Your task to perform on an android device: Open the phone app and click the voicemail tab. Image 0: 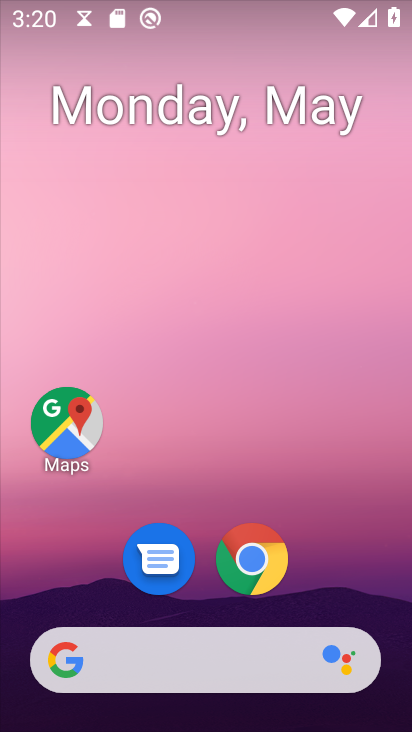
Step 0: drag from (320, 544) to (324, 227)
Your task to perform on an android device: Open the phone app and click the voicemail tab. Image 1: 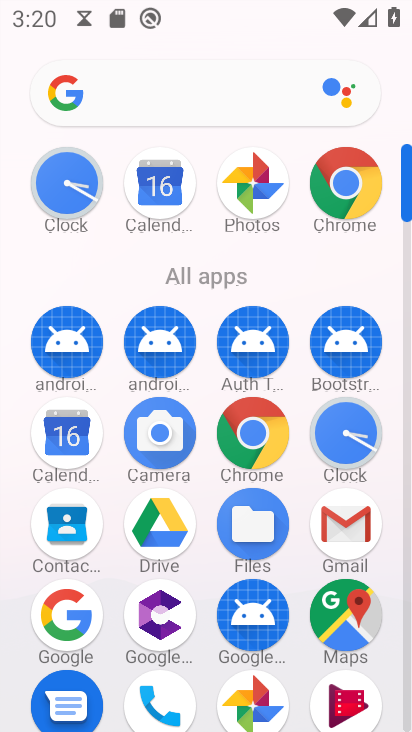
Step 1: click (157, 691)
Your task to perform on an android device: Open the phone app and click the voicemail tab. Image 2: 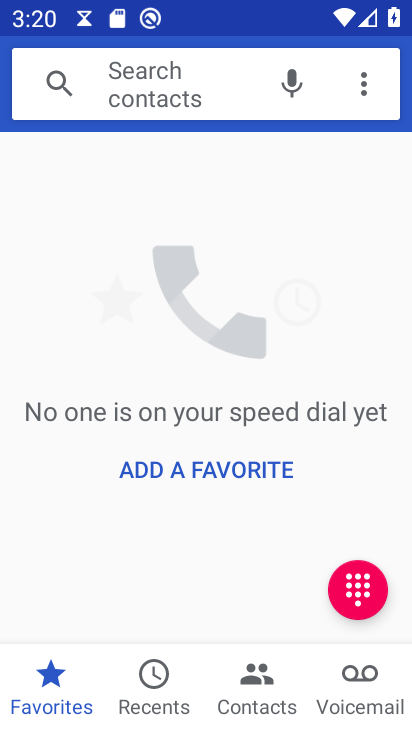
Step 2: click (363, 674)
Your task to perform on an android device: Open the phone app and click the voicemail tab. Image 3: 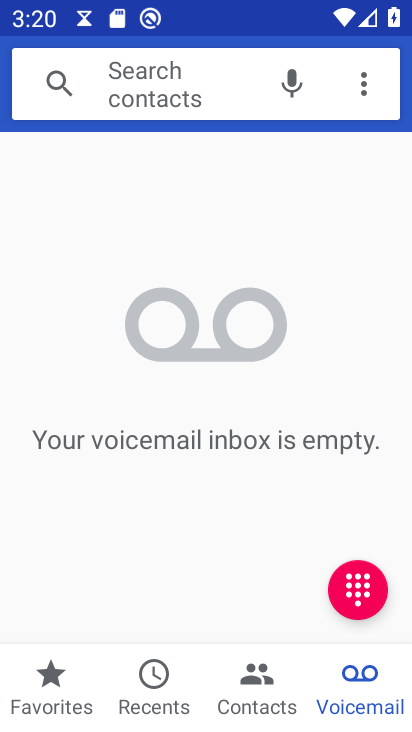
Step 3: task complete